Your task to perform on an android device: Is it going to rain today? Image 0: 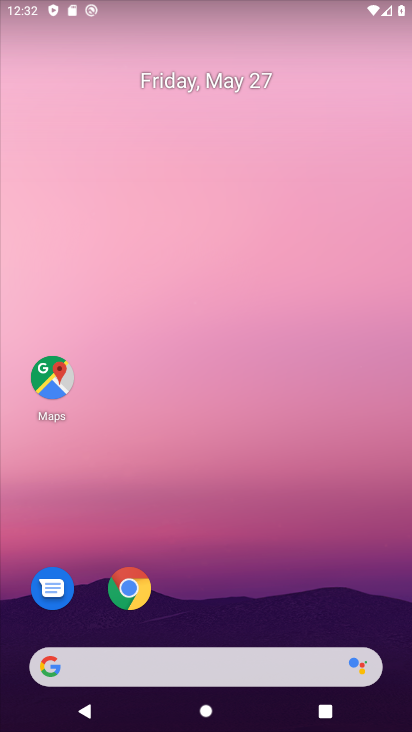
Step 0: press home button
Your task to perform on an android device: Is it going to rain today? Image 1: 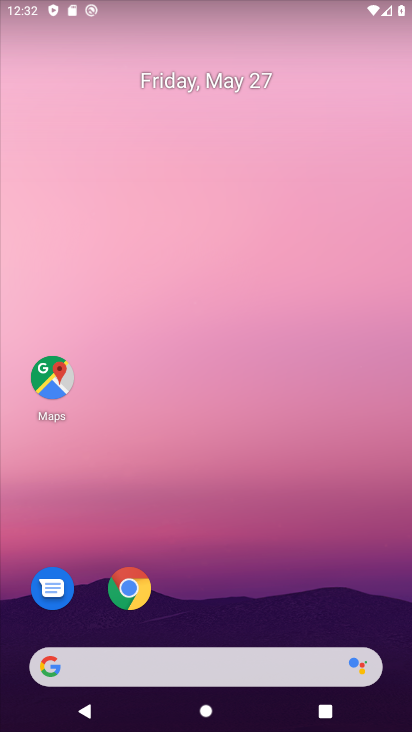
Step 1: drag from (5, 218) to (409, 231)
Your task to perform on an android device: Is it going to rain today? Image 2: 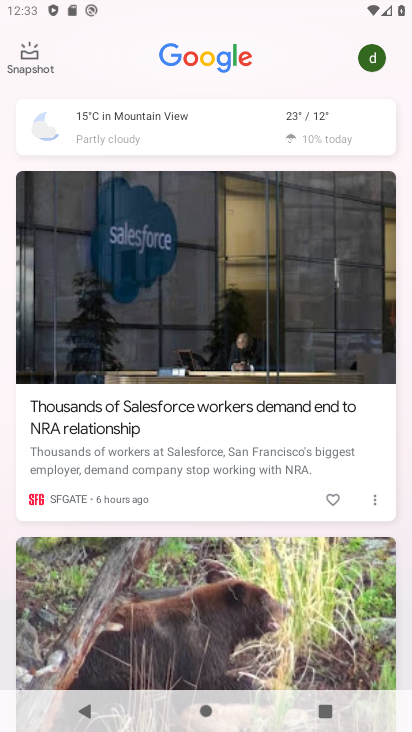
Step 2: click (316, 120)
Your task to perform on an android device: Is it going to rain today? Image 3: 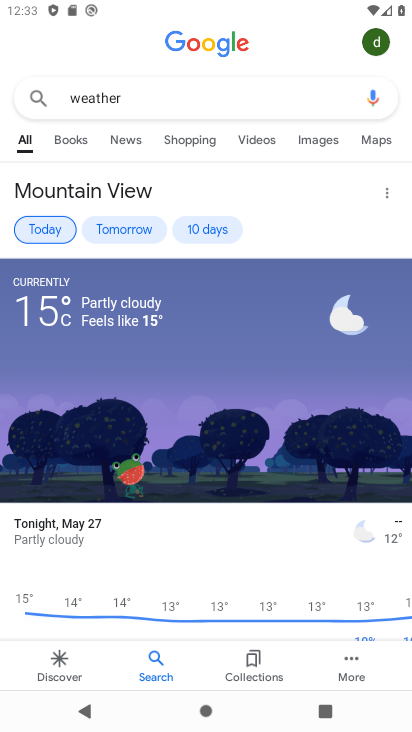
Step 3: task complete